Your task to perform on an android device: Do I have any events this weekend? Image 0: 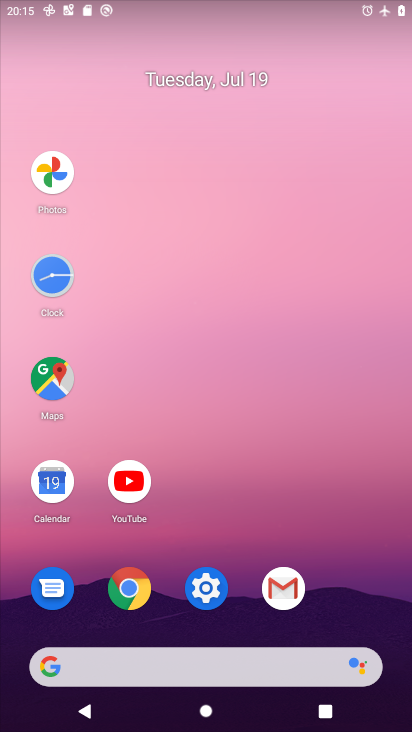
Step 0: click (41, 484)
Your task to perform on an android device: Do I have any events this weekend? Image 1: 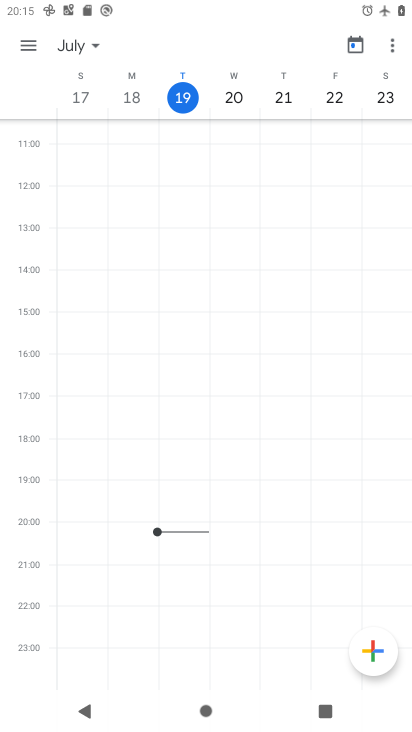
Step 1: task complete